Your task to perform on an android device: add a contact in the contacts app Image 0: 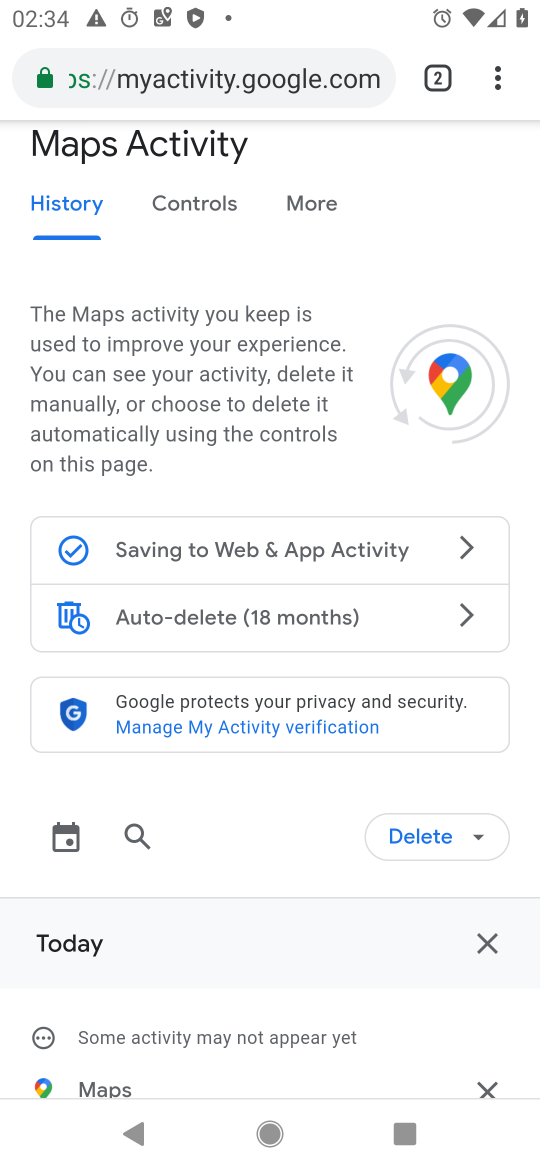
Step 0: press home button
Your task to perform on an android device: add a contact in the contacts app Image 1: 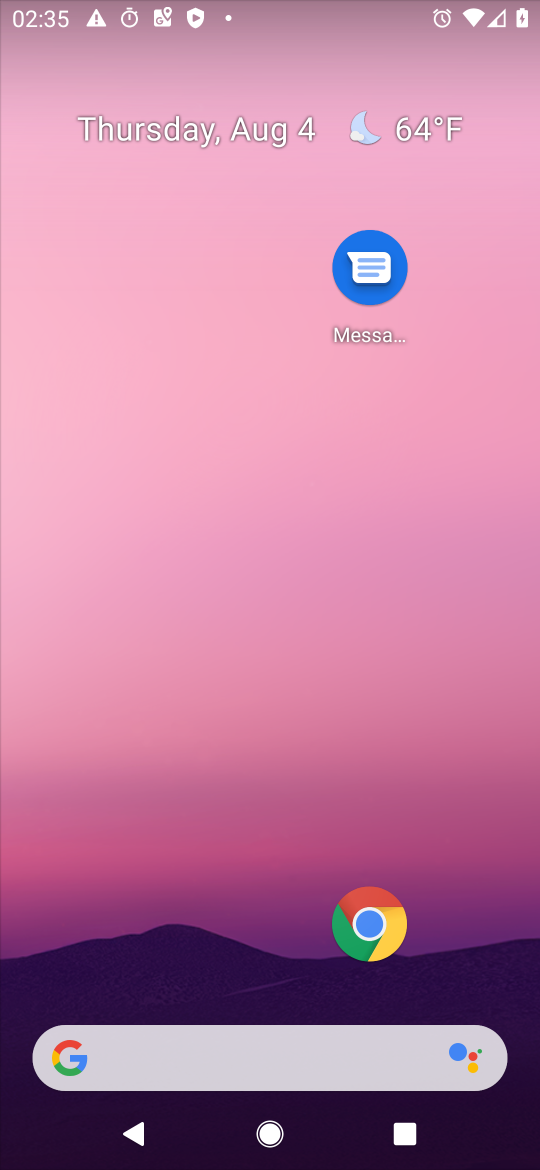
Step 1: drag from (270, 113) to (292, 40)
Your task to perform on an android device: add a contact in the contacts app Image 2: 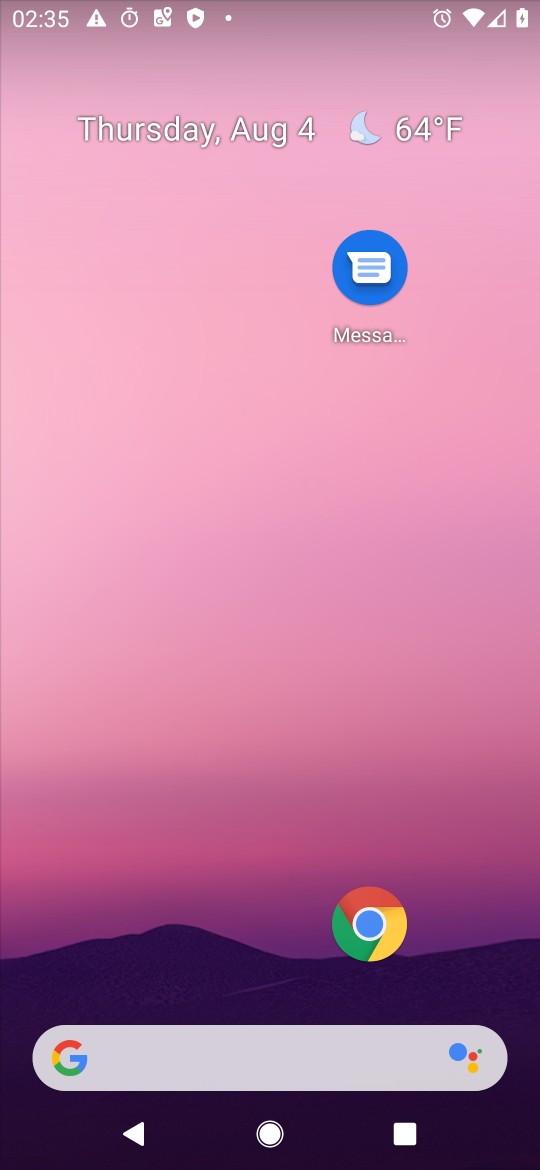
Step 2: drag from (66, 947) to (171, 77)
Your task to perform on an android device: add a contact in the contacts app Image 3: 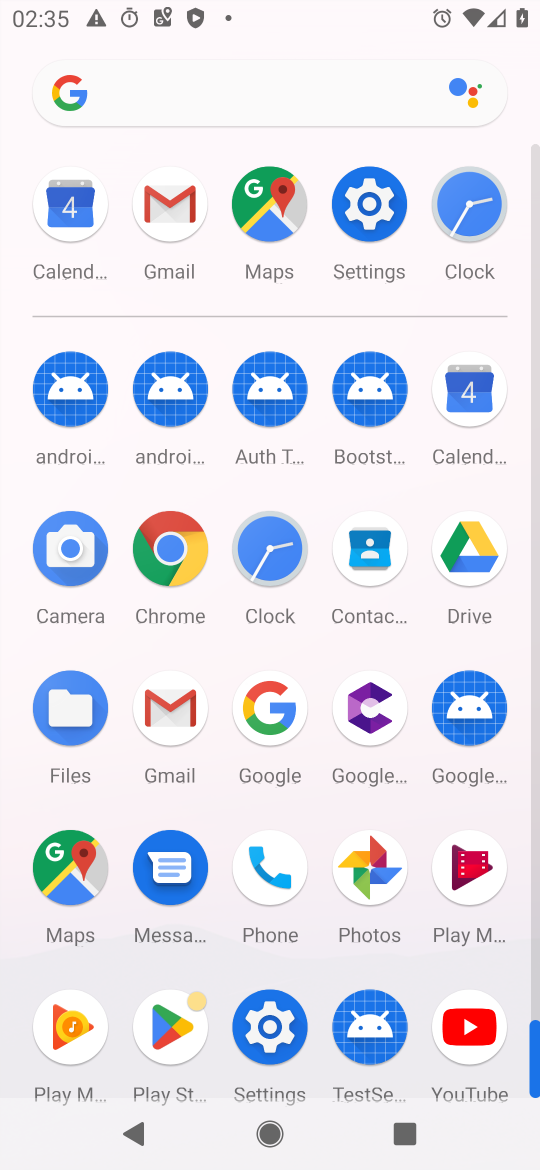
Step 3: click (345, 559)
Your task to perform on an android device: add a contact in the contacts app Image 4: 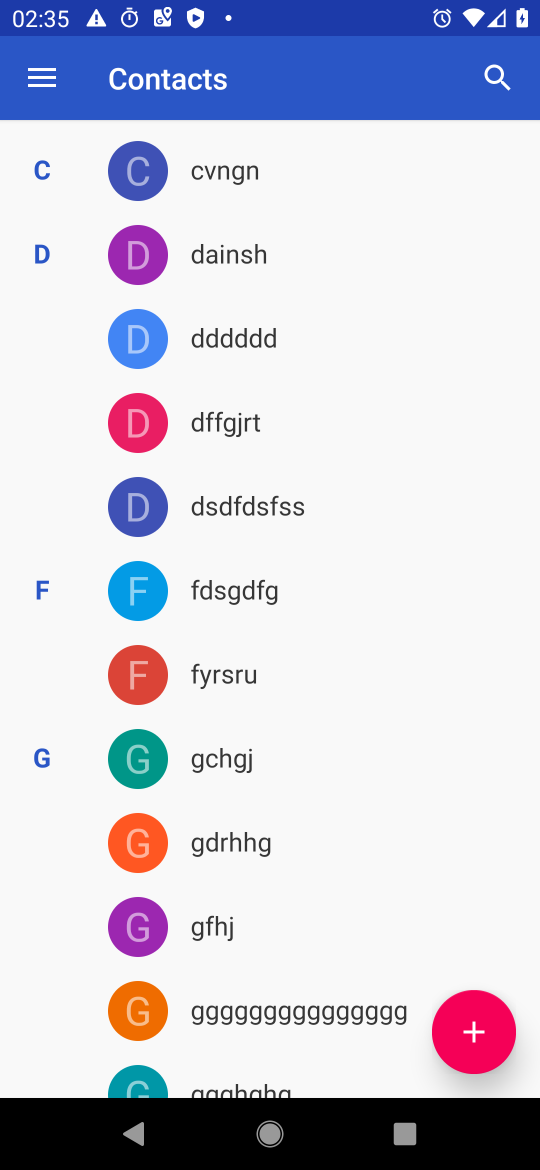
Step 4: click (455, 1034)
Your task to perform on an android device: add a contact in the contacts app Image 5: 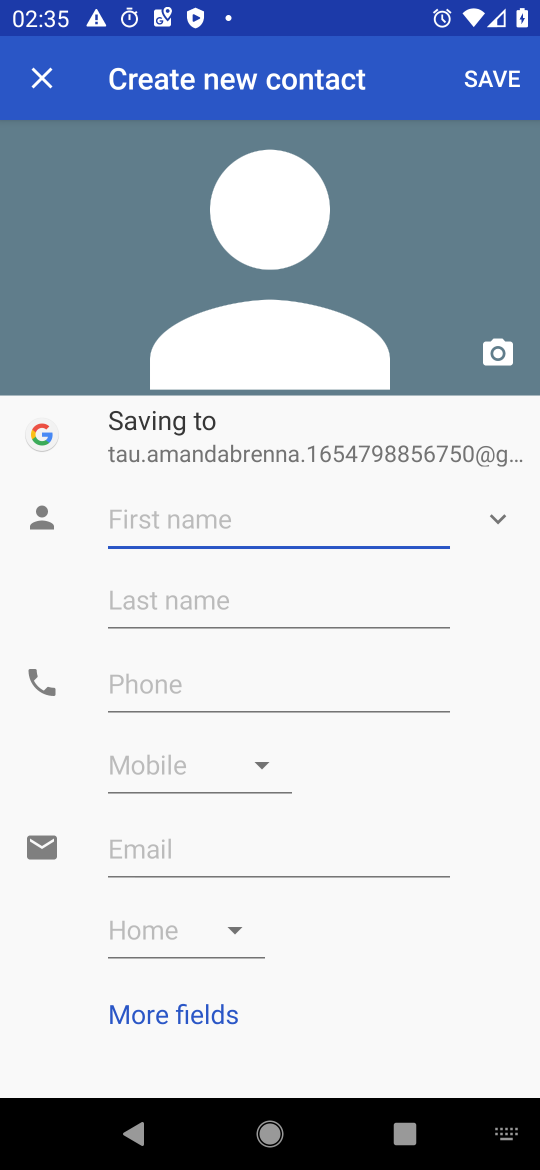
Step 5: type "grhyreg"
Your task to perform on an android device: add a contact in the contacts app Image 6: 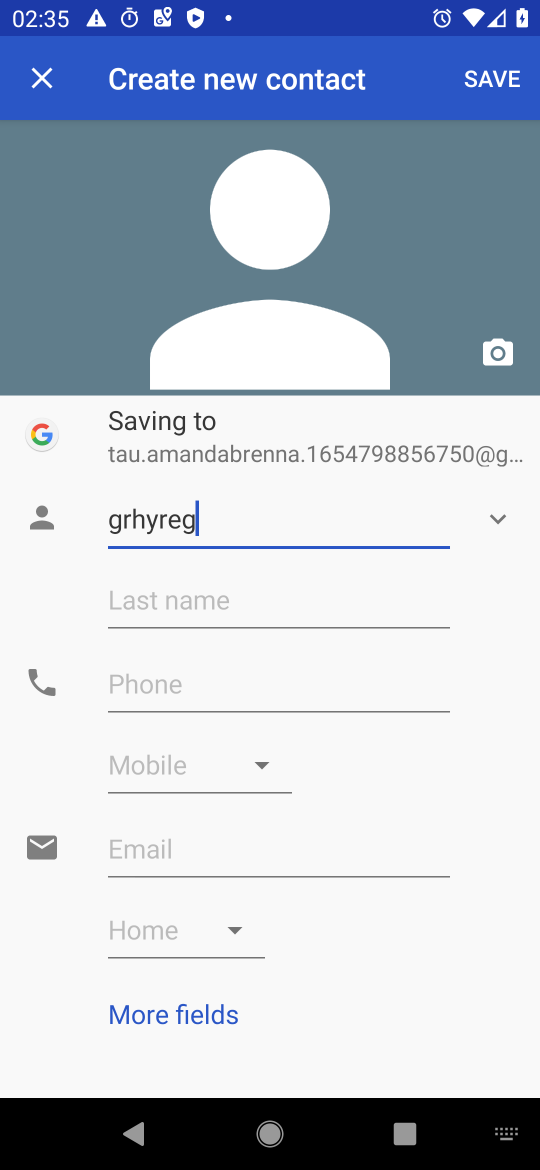
Step 6: type ""
Your task to perform on an android device: add a contact in the contacts app Image 7: 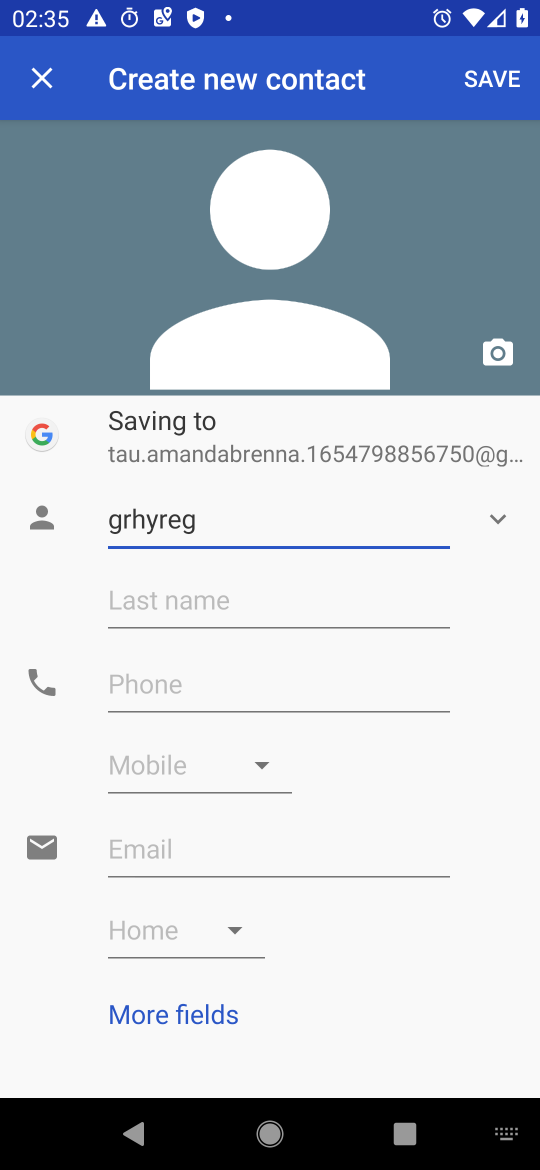
Step 7: click (471, 93)
Your task to perform on an android device: add a contact in the contacts app Image 8: 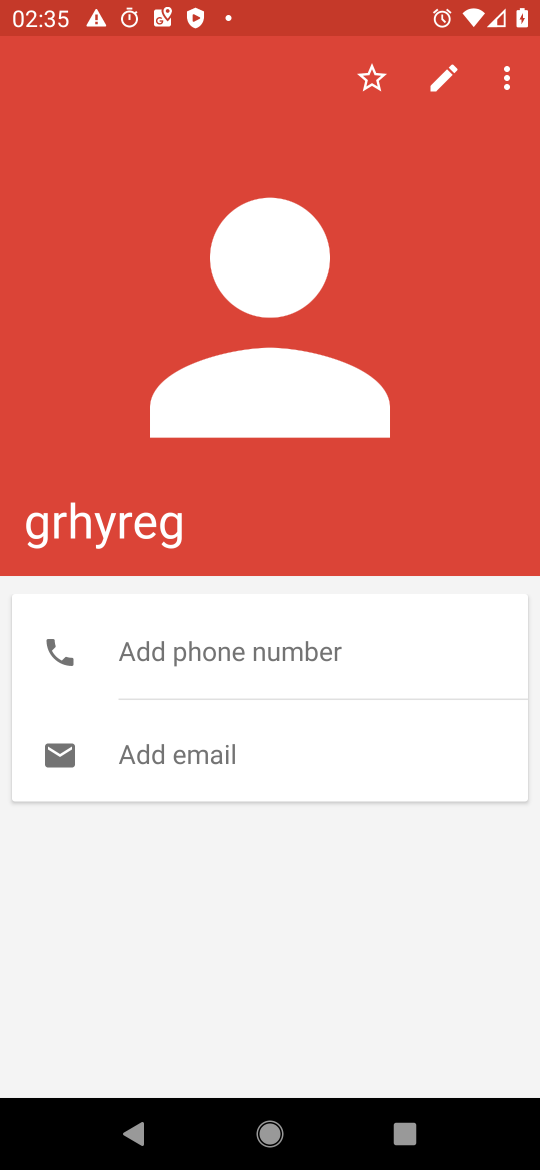
Step 8: task complete